Your task to perform on an android device: Open Android settings Image 0: 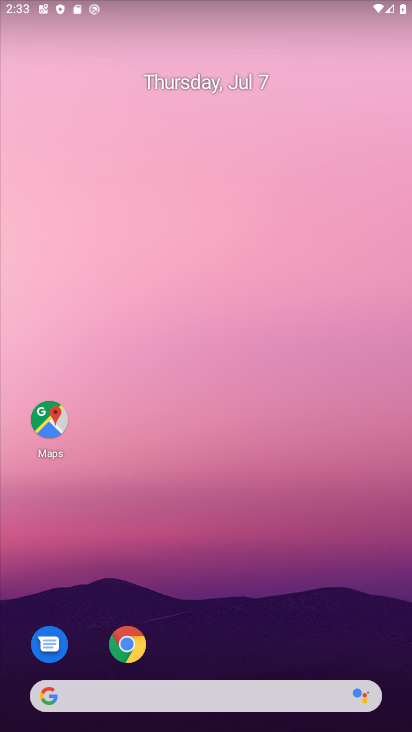
Step 0: press home button
Your task to perform on an android device: Open Android settings Image 1: 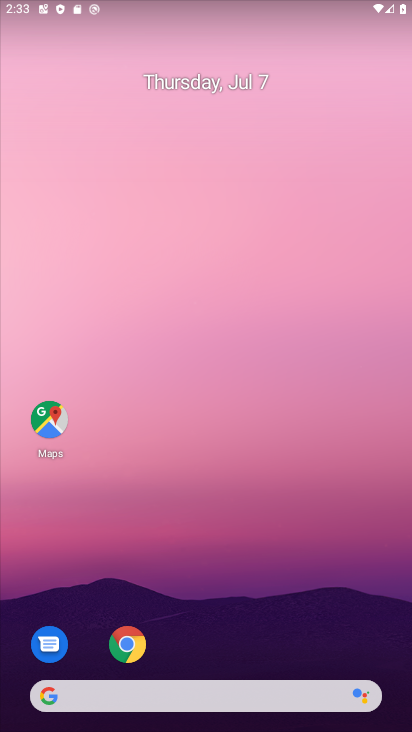
Step 1: drag from (260, 548) to (220, 100)
Your task to perform on an android device: Open Android settings Image 2: 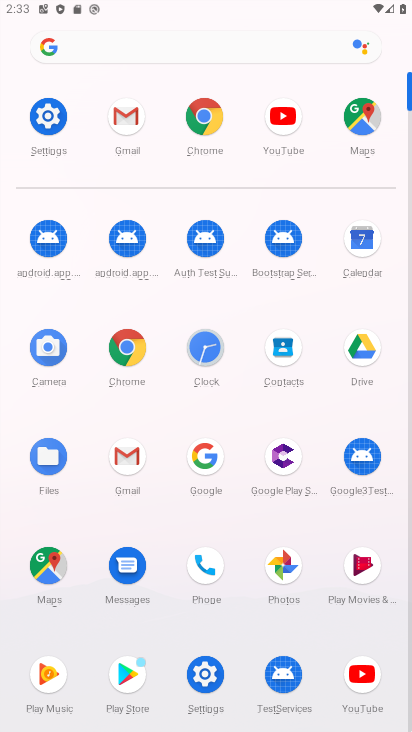
Step 2: click (46, 116)
Your task to perform on an android device: Open Android settings Image 3: 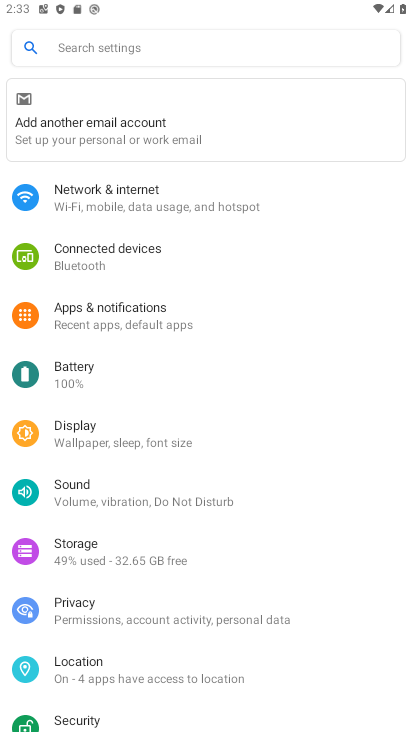
Step 3: task complete